Your task to perform on an android device: turn off picture-in-picture Image 0: 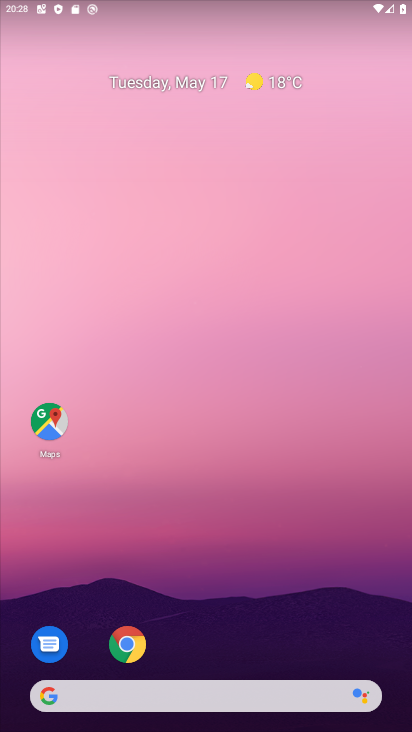
Step 0: drag from (172, 620) to (242, 164)
Your task to perform on an android device: turn off picture-in-picture Image 1: 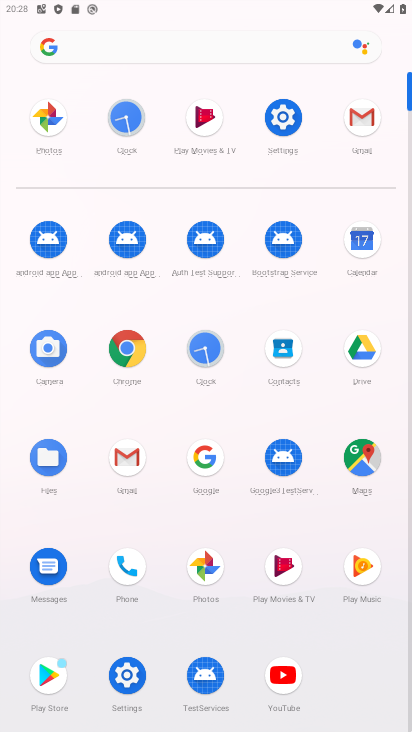
Step 1: click (272, 124)
Your task to perform on an android device: turn off picture-in-picture Image 2: 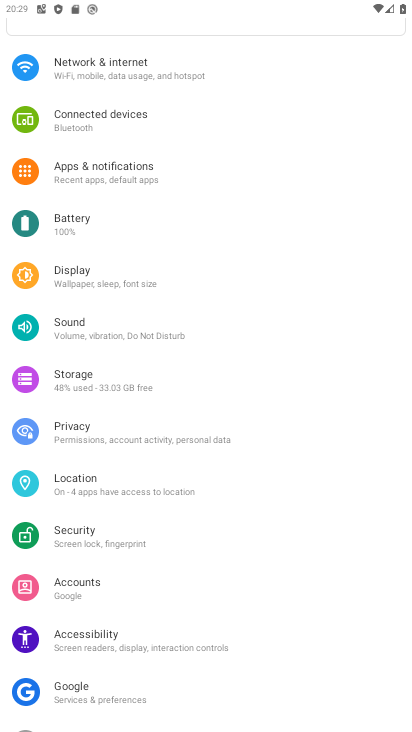
Step 2: click (139, 173)
Your task to perform on an android device: turn off picture-in-picture Image 3: 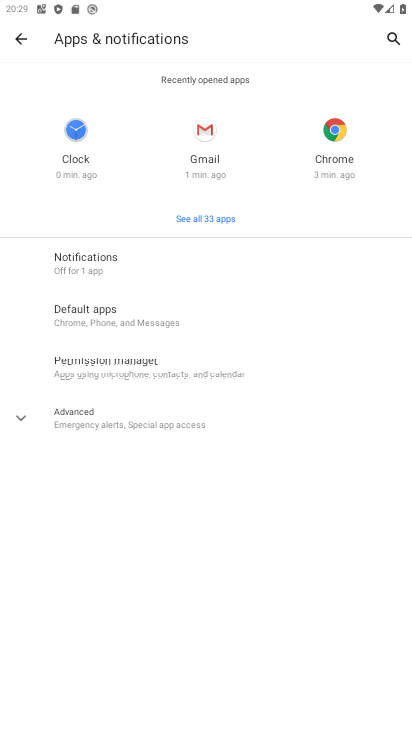
Step 3: click (68, 415)
Your task to perform on an android device: turn off picture-in-picture Image 4: 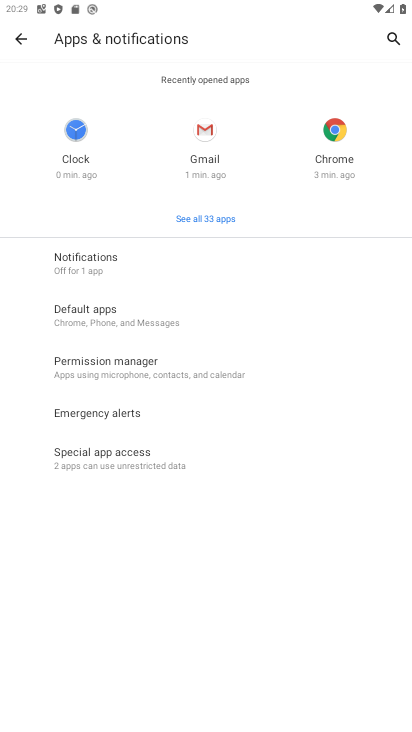
Step 4: click (90, 448)
Your task to perform on an android device: turn off picture-in-picture Image 5: 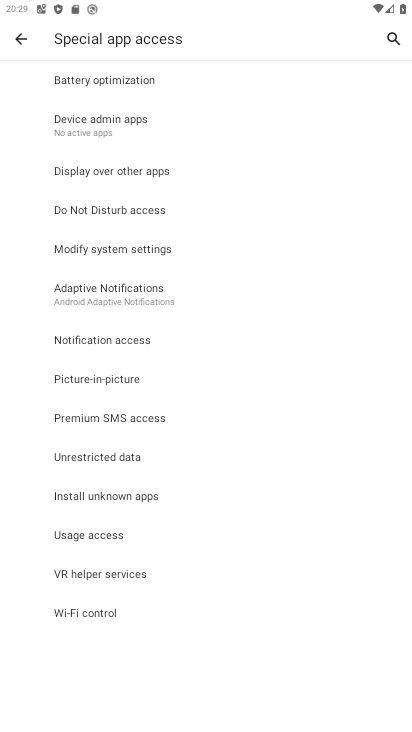
Step 5: click (97, 373)
Your task to perform on an android device: turn off picture-in-picture Image 6: 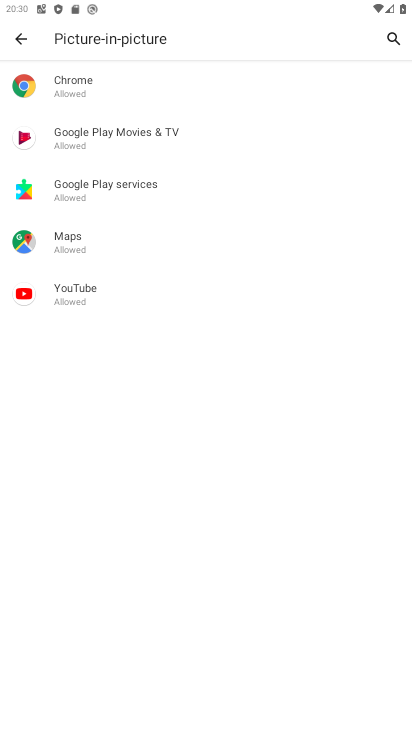
Step 6: click (71, 75)
Your task to perform on an android device: turn off picture-in-picture Image 7: 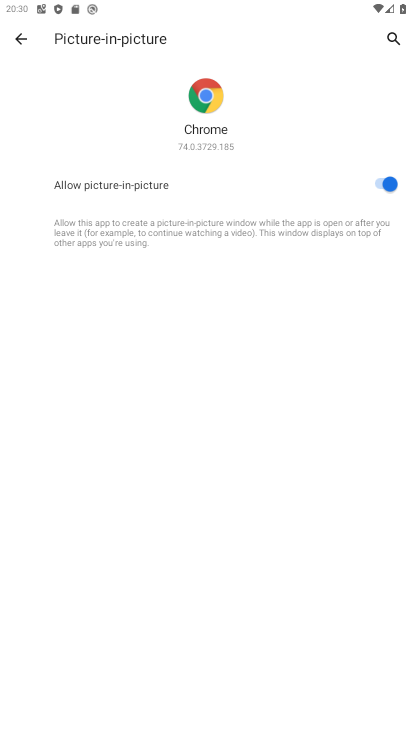
Step 7: click (384, 189)
Your task to perform on an android device: turn off picture-in-picture Image 8: 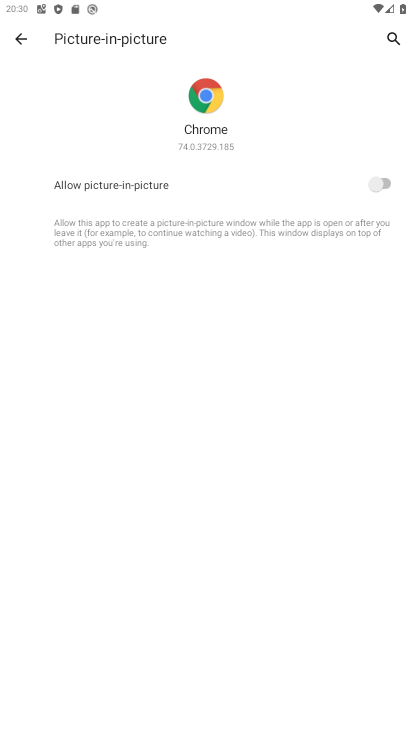
Step 8: task complete